Your task to perform on an android device: Go to Amazon Image 0: 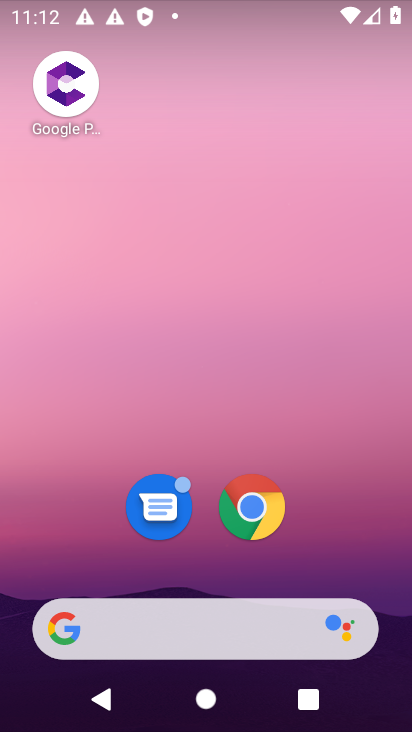
Step 0: click (250, 505)
Your task to perform on an android device: Go to Amazon Image 1: 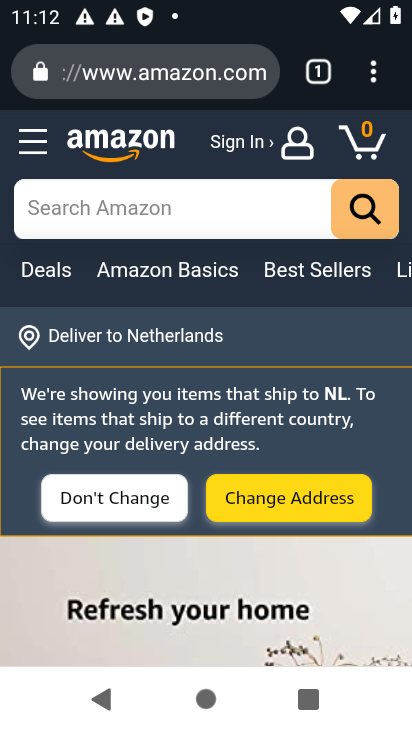
Step 1: task complete